Your task to perform on an android device: Is it going to rain today? Image 0: 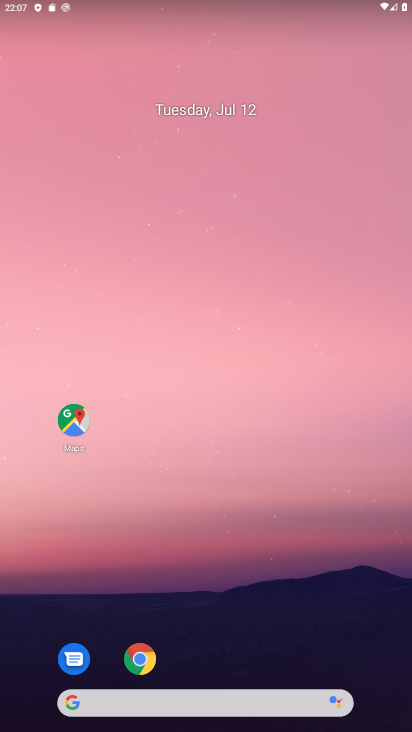
Step 0: drag from (233, 654) to (247, 298)
Your task to perform on an android device: Is it going to rain today? Image 1: 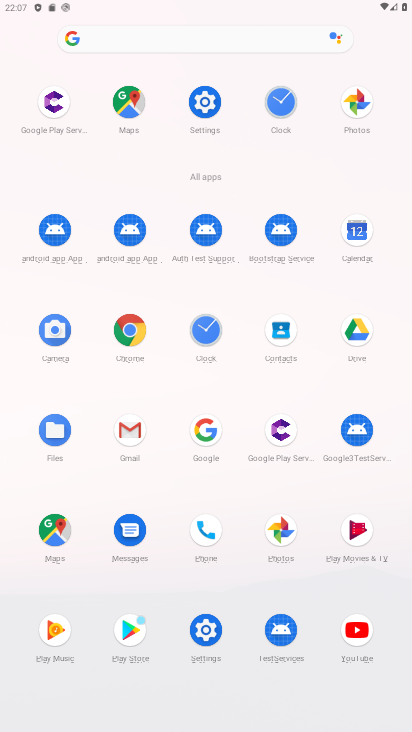
Step 1: click (132, 324)
Your task to perform on an android device: Is it going to rain today? Image 2: 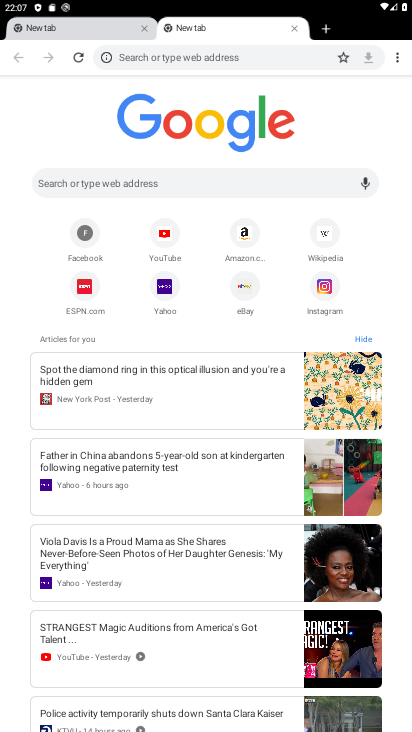
Step 2: click (198, 166)
Your task to perform on an android device: Is it going to rain today? Image 3: 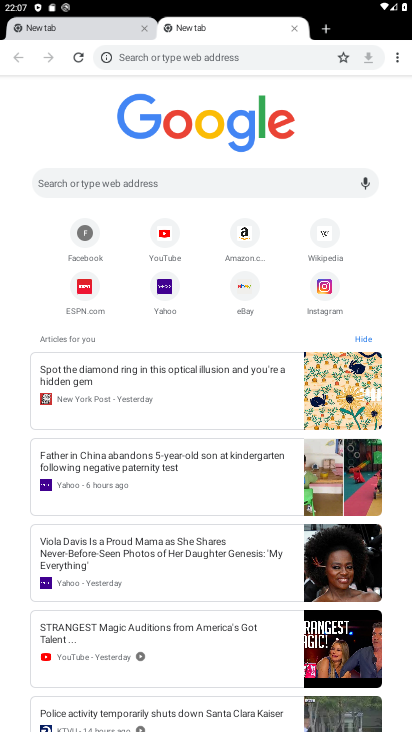
Step 3: type "Is it going to rain today "
Your task to perform on an android device: Is it going to rain today? Image 4: 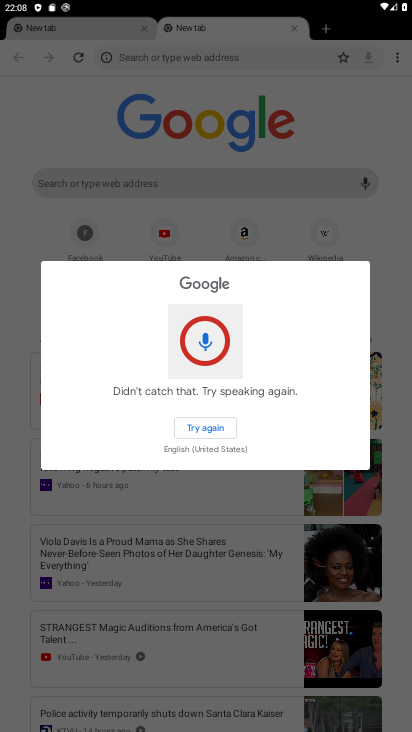
Step 4: click (357, 113)
Your task to perform on an android device: Is it going to rain today? Image 5: 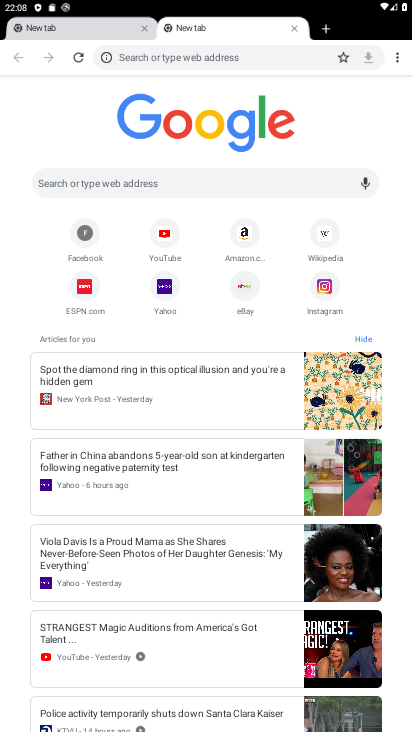
Step 5: click (208, 179)
Your task to perform on an android device: Is it going to rain today? Image 6: 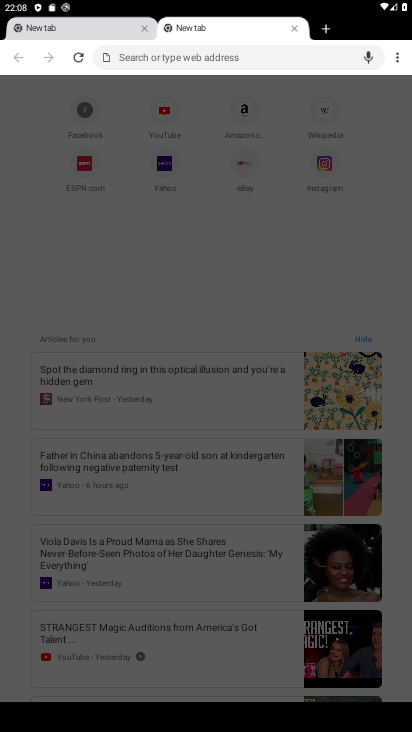
Step 6: type "Is it going to rain today "
Your task to perform on an android device: Is it going to rain today? Image 7: 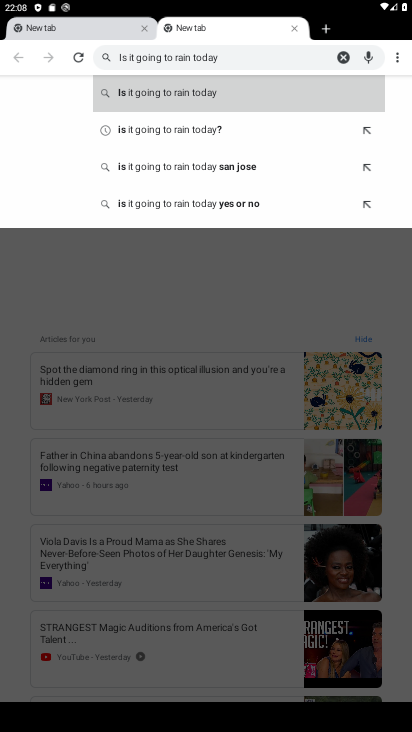
Step 7: click (213, 92)
Your task to perform on an android device: Is it going to rain today? Image 8: 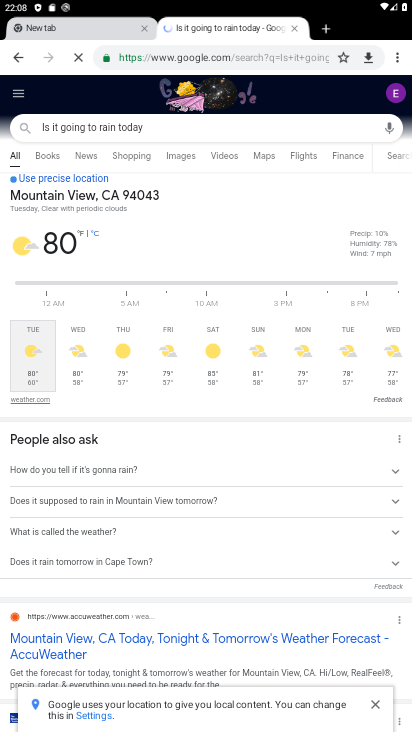
Step 8: task complete